Your task to perform on an android device: find which apps use the phone's location Image 0: 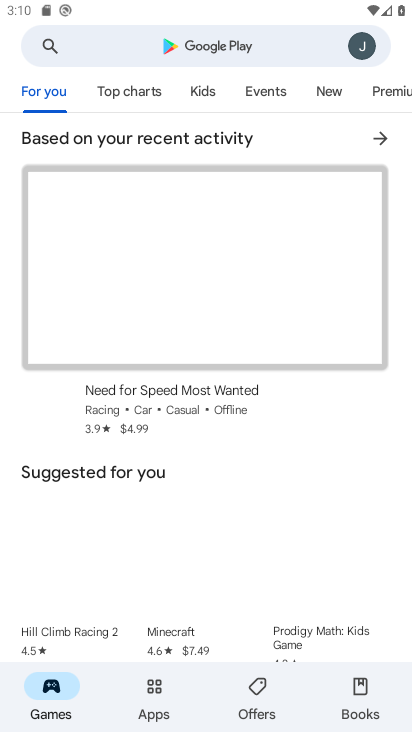
Step 0: press home button
Your task to perform on an android device: find which apps use the phone's location Image 1: 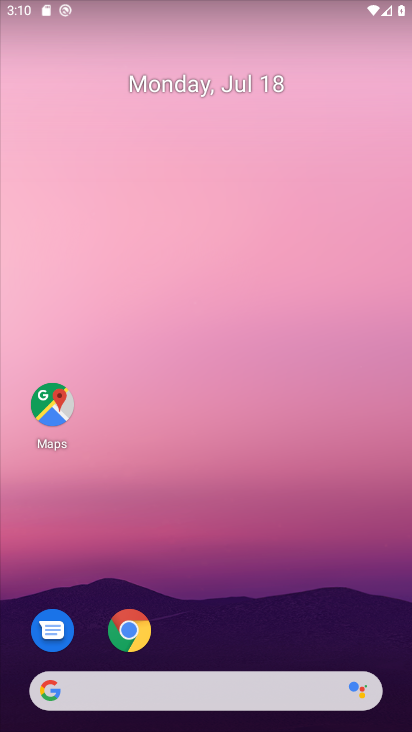
Step 1: drag from (342, 622) to (261, 104)
Your task to perform on an android device: find which apps use the phone's location Image 2: 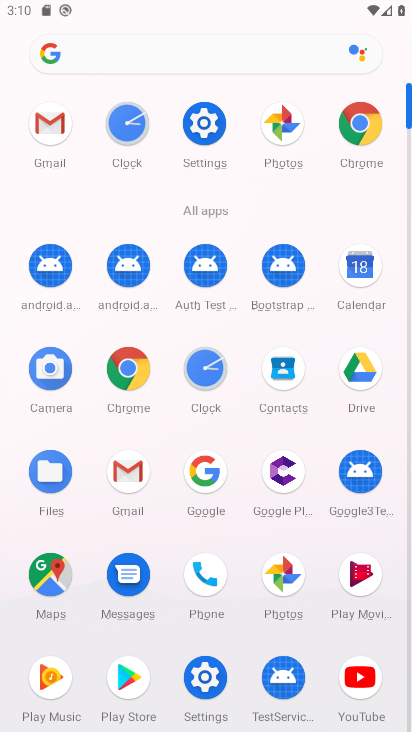
Step 2: click (212, 134)
Your task to perform on an android device: find which apps use the phone's location Image 3: 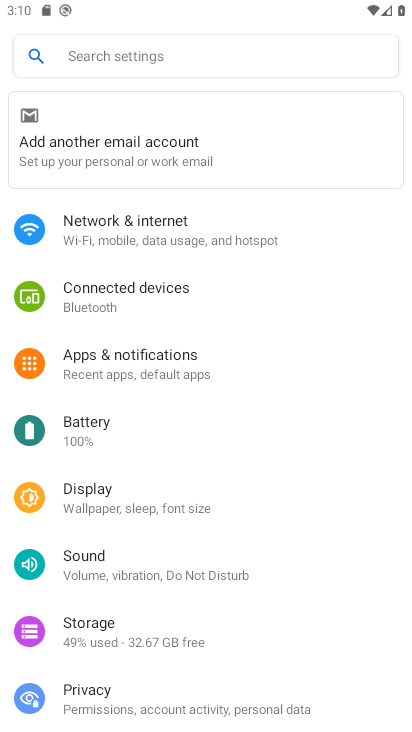
Step 3: drag from (207, 692) to (156, 253)
Your task to perform on an android device: find which apps use the phone's location Image 4: 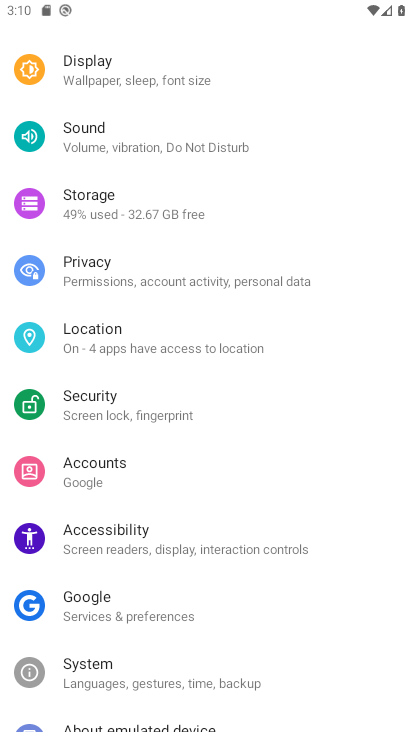
Step 4: click (151, 340)
Your task to perform on an android device: find which apps use the phone's location Image 5: 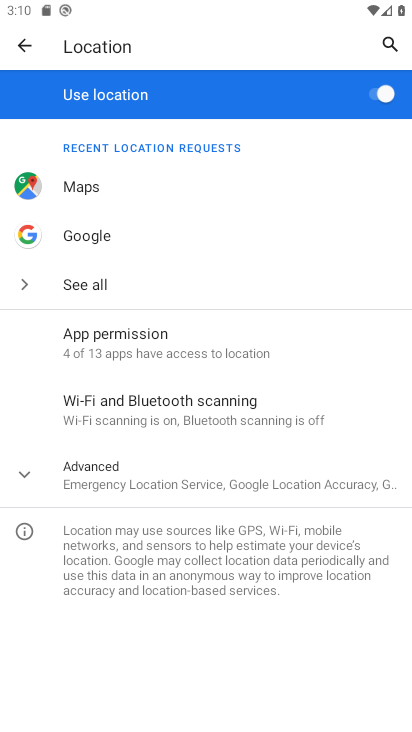
Step 5: click (259, 290)
Your task to perform on an android device: find which apps use the phone's location Image 6: 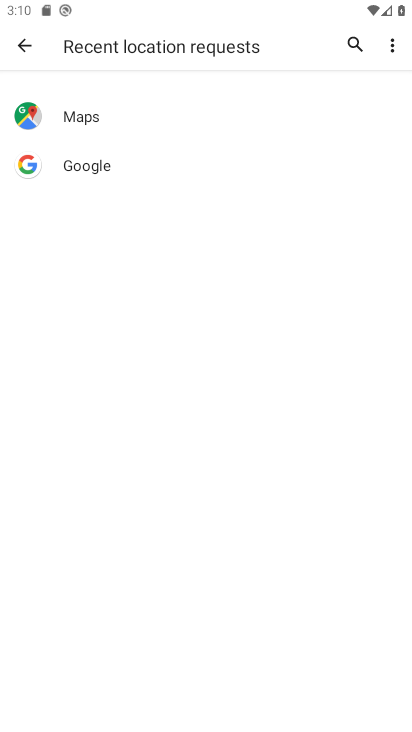
Step 6: task complete